Your task to perform on an android device: Go to eBay Image 0: 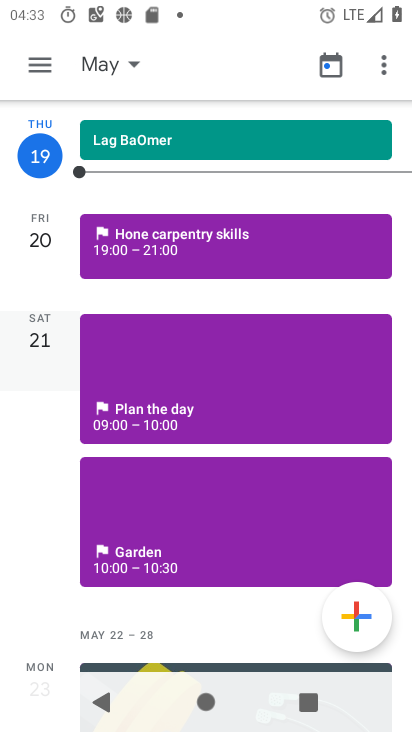
Step 0: press back button
Your task to perform on an android device: Go to eBay Image 1: 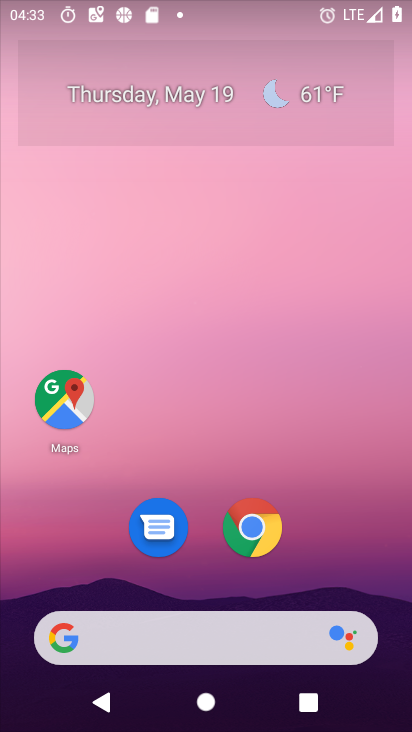
Step 1: click (244, 517)
Your task to perform on an android device: Go to eBay Image 2: 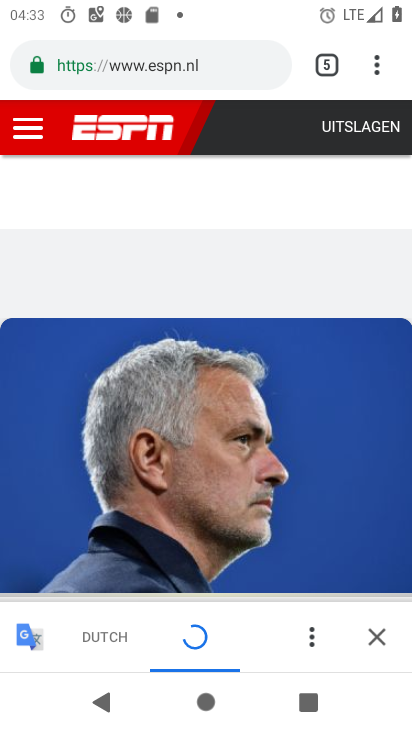
Step 2: click (325, 70)
Your task to perform on an android device: Go to eBay Image 3: 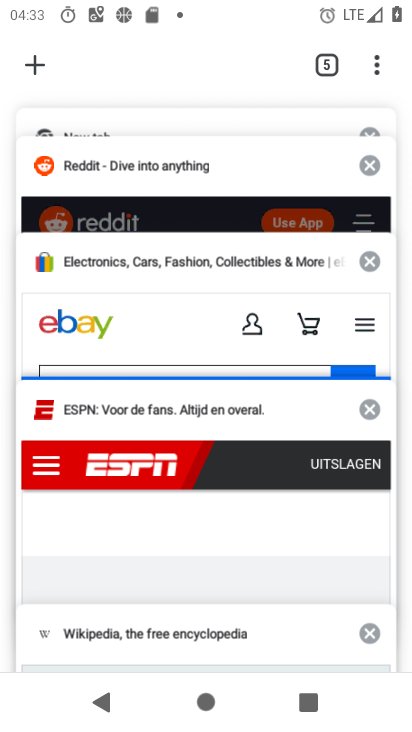
Step 3: click (94, 303)
Your task to perform on an android device: Go to eBay Image 4: 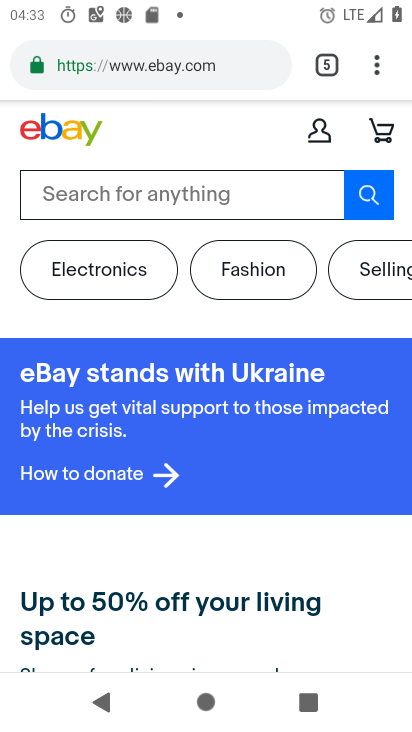
Step 4: task complete